Your task to perform on an android device: Go to display settings Image 0: 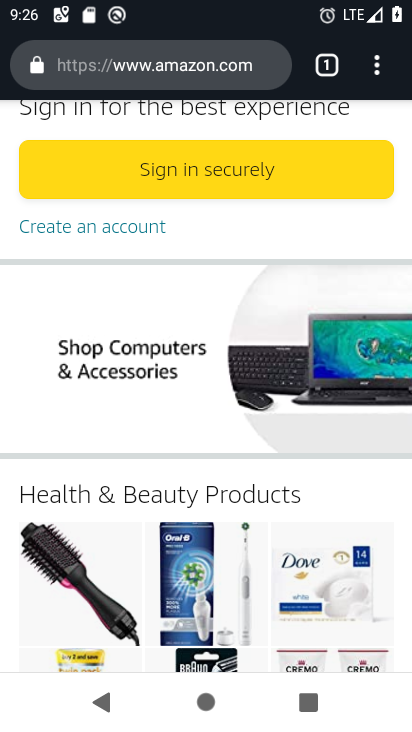
Step 0: press home button
Your task to perform on an android device: Go to display settings Image 1: 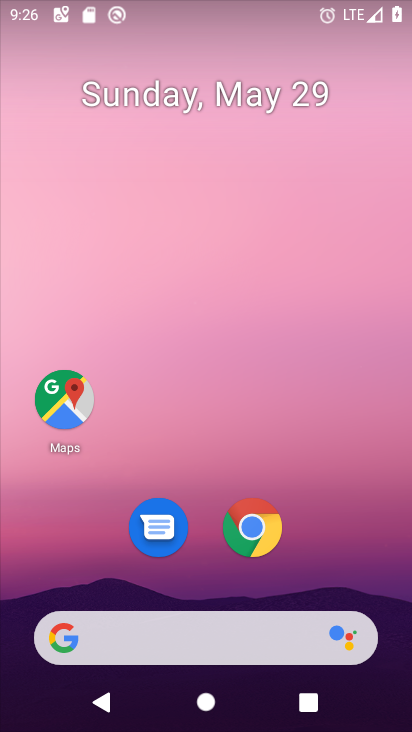
Step 1: drag from (216, 586) to (229, 72)
Your task to perform on an android device: Go to display settings Image 2: 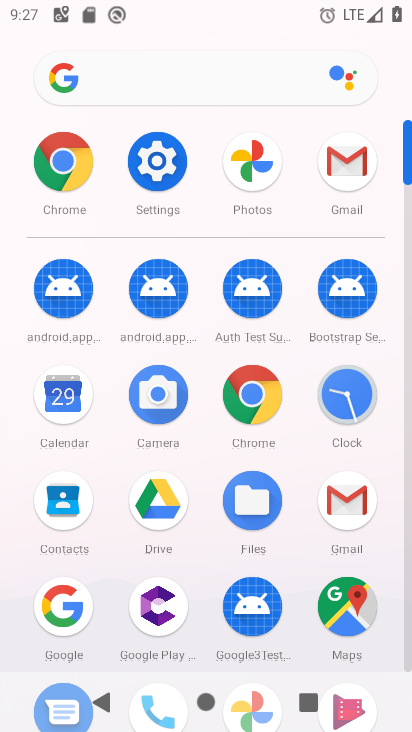
Step 2: click (152, 146)
Your task to perform on an android device: Go to display settings Image 3: 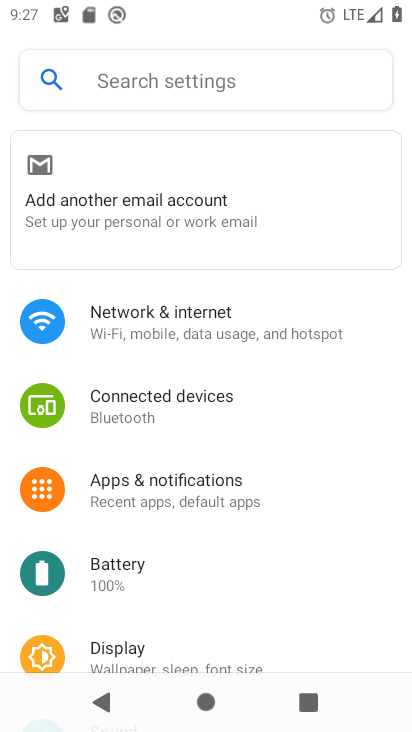
Step 3: click (150, 643)
Your task to perform on an android device: Go to display settings Image 4: 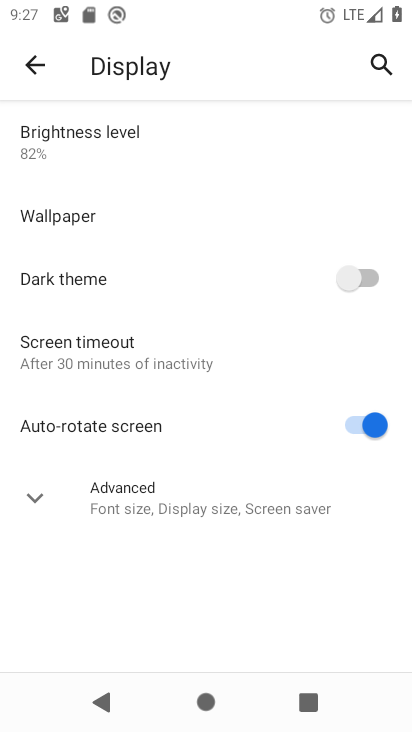
Step 4: click (33, 493)
Your task to perform on an android device: Go to display settings Image 5: 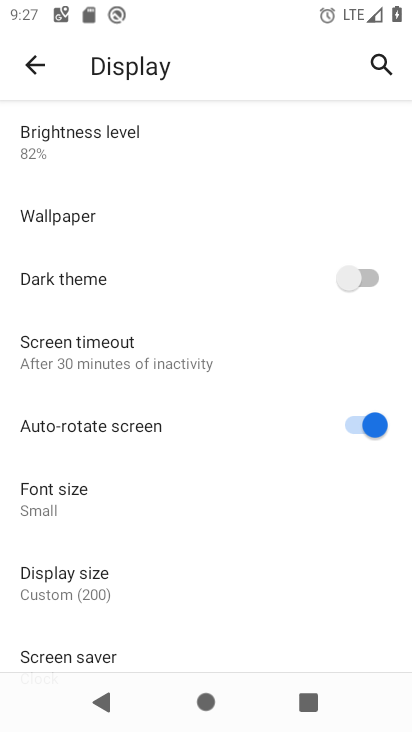
Step 5: task complete